Your task to perform on an android device: see creations saved in the google photos Image 0: 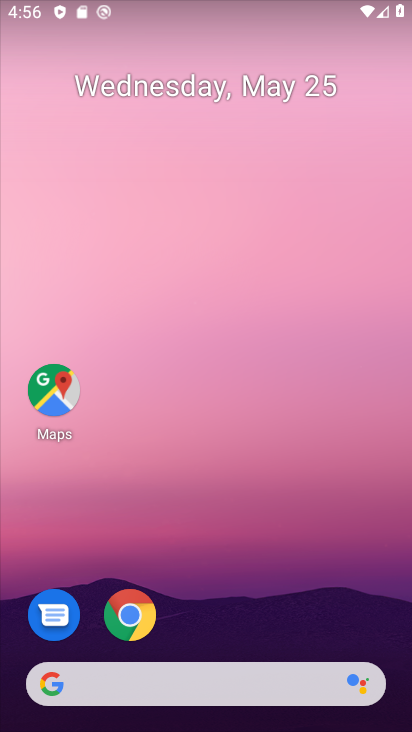
Step 0: drag from (252, 596) to (277, 14)
Your task to perform on an android device: see creations saved in the google photos Image 1: 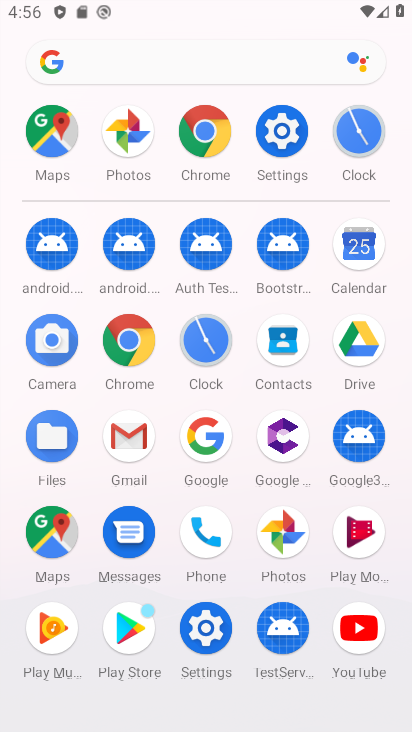
Step 1: click (274, 550)
Your task to perform on an android device: see creations saved in the google photos Image 2: 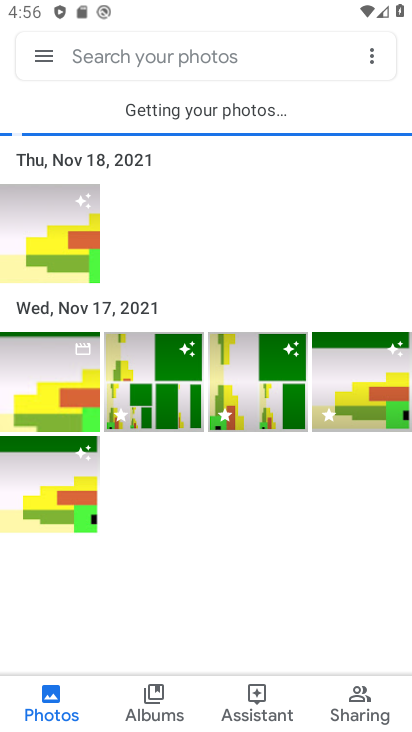
Step 2: click (224, 43)
Your task to perform on an android device: see creations saved in the google photos Image 3: 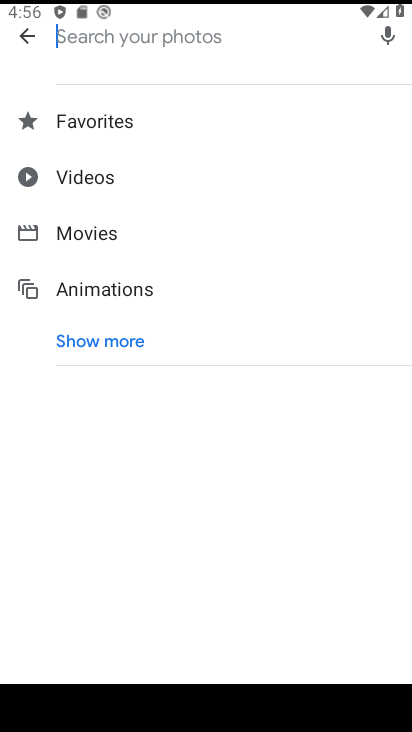
Step 3: click (129, 344)
Your task to perform on an android device: see creations saved in the google photos Image 4: 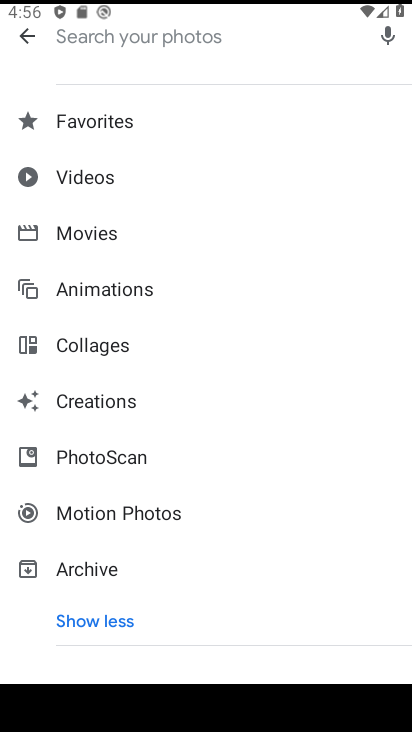
Step 4: click (122, 409)
Your task to perform on an android device: see creations saved in the google photos Image 5: 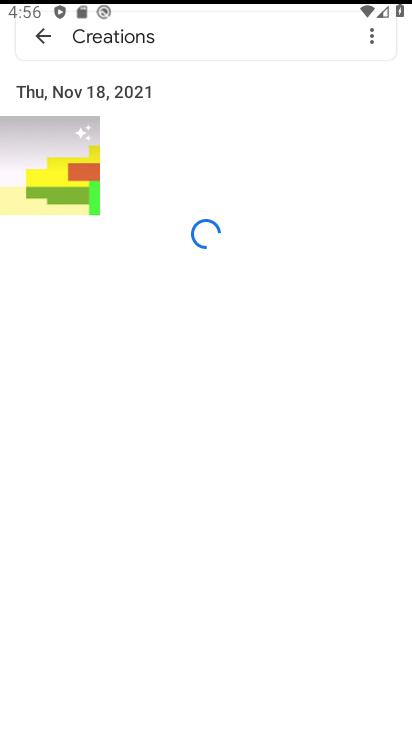
Step 5: task complete